Your task to perform on an android device: Add alienware aurora to the cart on bestbuy, then select checkout. Image 0: 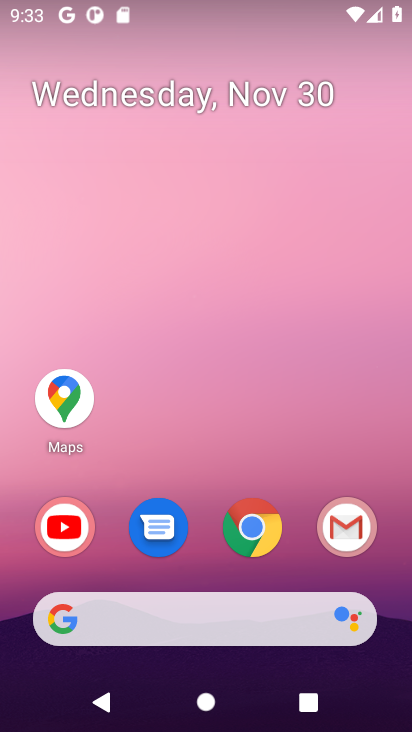
Step 0: click (258, 523)
Your task to perform on an android device: Add alienware aurora to the cart on bestbuy, then select checkout. Image 1: 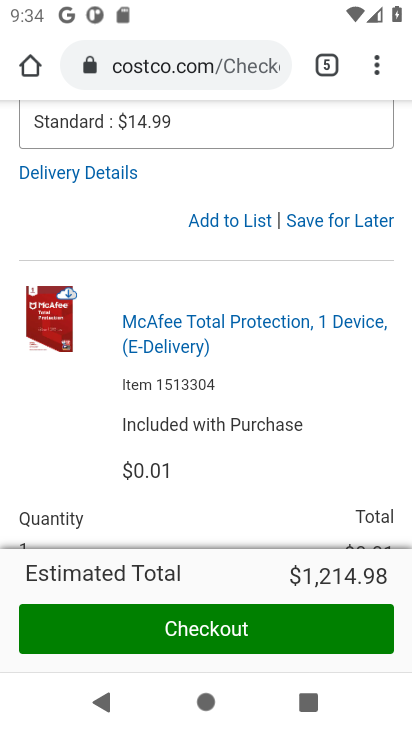
Step 1: click (231, 59)
Your task to perform on an android device: Add alienware aurora to the cart on bestbuy, then select checkout. Image 2: 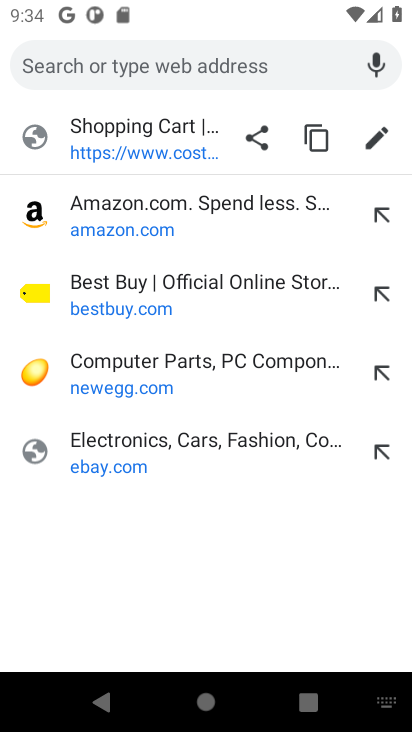
Step 2: click (134, 277)
Your task to perform on an android device: Add alienware aurora to the cart on bestbuy, then select checkout. Image 3: 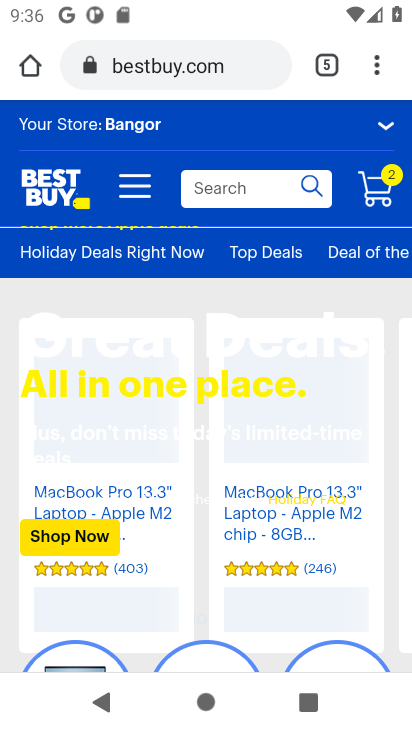
Step 3: click (285, 192)
Your task to perform on an android device: Add alienware aurora to the cart on bestbuy, then select checkout. Image 4: 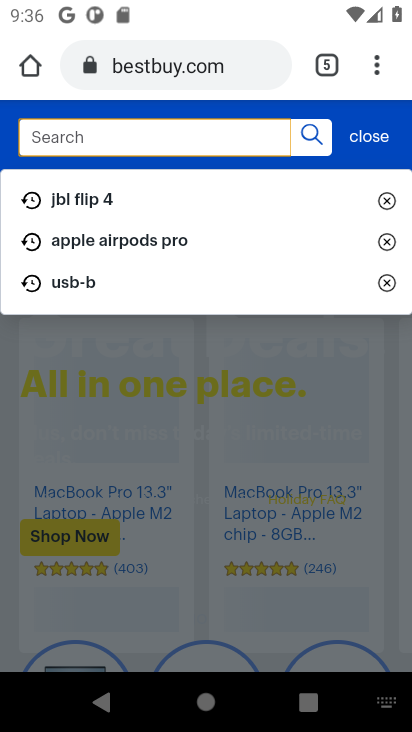
Step 4: type "alienware aurora"
Your task to perform on an android device: Add alienware aurora to the cart on bestbuy, then select checkout. Image 5: 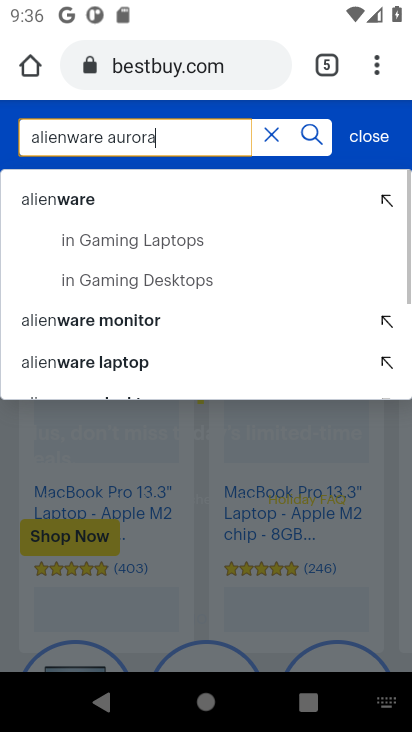
Step 5: press enter
Your task to perform on an android device: Add alienware aurora to the cart on bestbuy, then select checkout. Image 6: 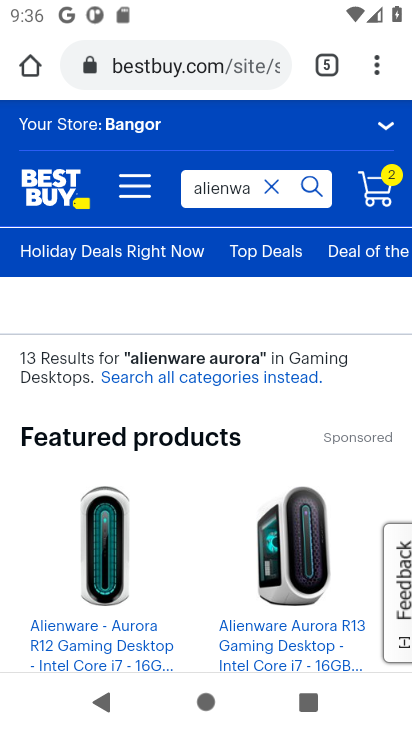
Step 6: click (87, 569)
Your task to perform on an android device: Add alienware aurora to the cart on bestbuy, then select checkout. Image 7: 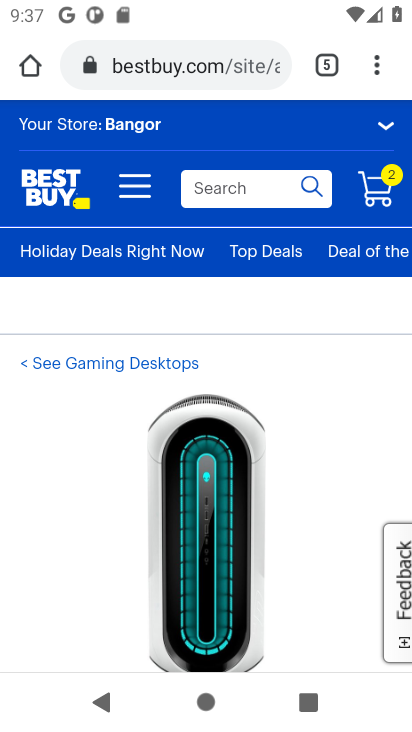
Step 7: drag from (302, 548) to (302, 79)
Your task to perform on an android device: Add alienware aurora to the cart on bestbuy, then select checkout. Image 8: 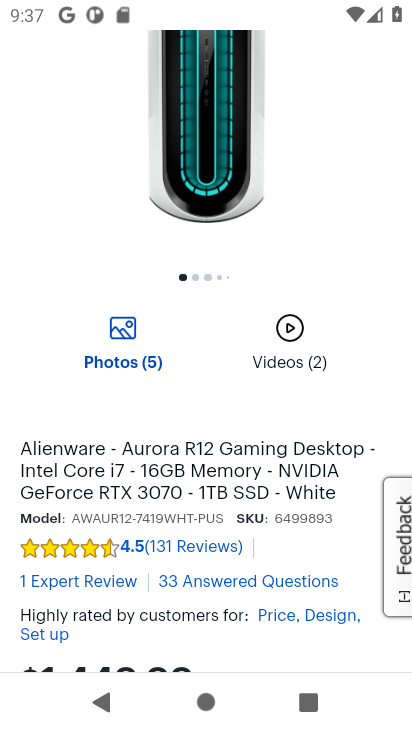
Step 8: drag from (326, 555) to (304, 69)
Your task to perform on an android device: Add alienware aurora to the cart on bestbuy, then select checkout. Image 9: 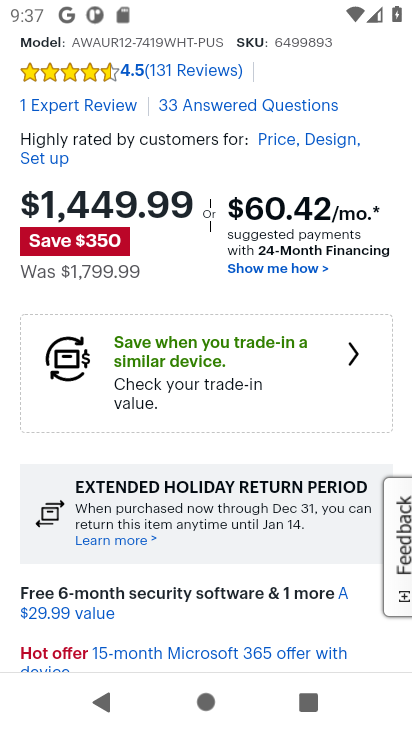
Step 9: drag from (316, 553) to (319, 155)
Your task to perform on an android device: Add alienware aurora to the cart on bestbuy, then select checkout. Image 10: 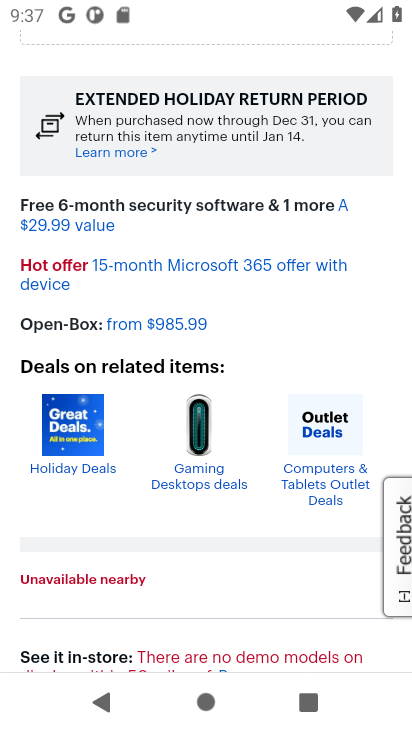
Step 10: drag from (282, 557) to (308, 118)
Your task to perform on an android device: Add alienware aurora to the cart on bestbuy, then select checkout. Image 11: 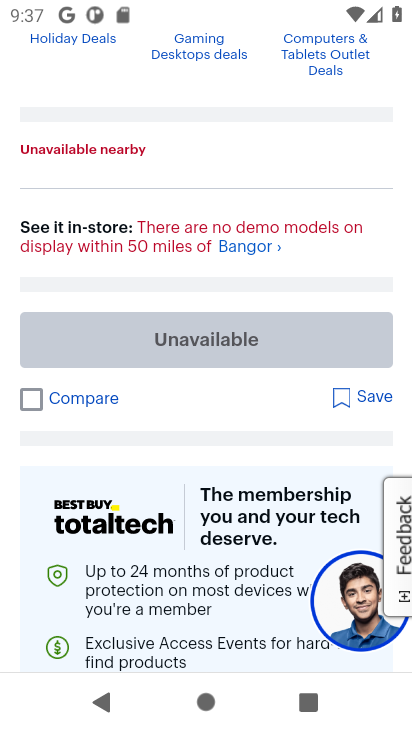
Step 11: press back button
Your task to perform on an android device: Add alienware aurora to the cart on bestbuy, then select checkout. Image 12: 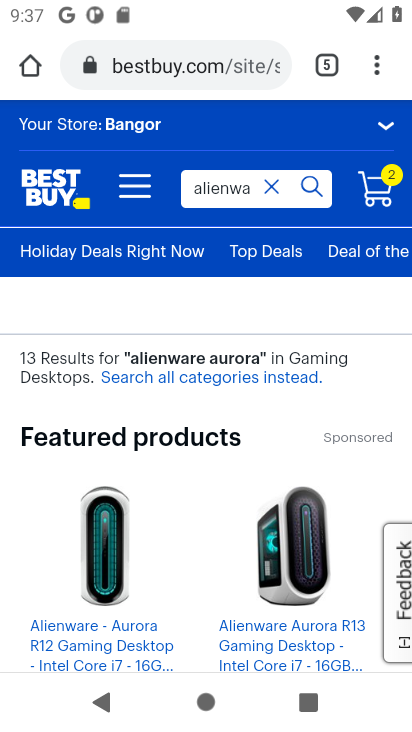
Step 12: drag from (354, 534) to (343, 164)
Your task to perform on an android device: Add alienware aurora to the cart on bestbuy, then select checkout. Image 13: 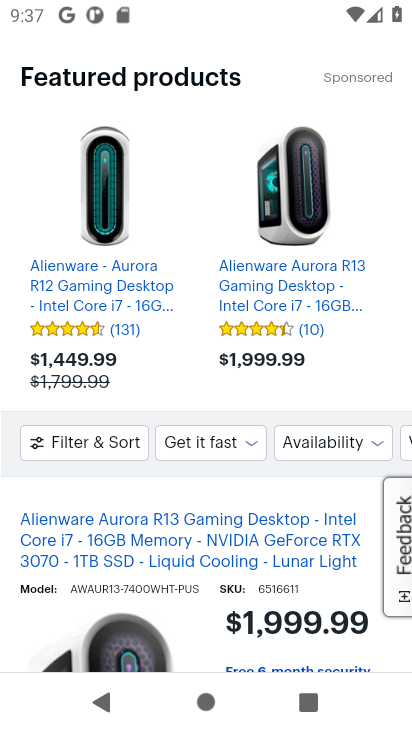
Step 13: click (295, 214)
Your task to perform on an android device: Add alienware aurora to the cart on bestbuy, then select checkout. Image 14: 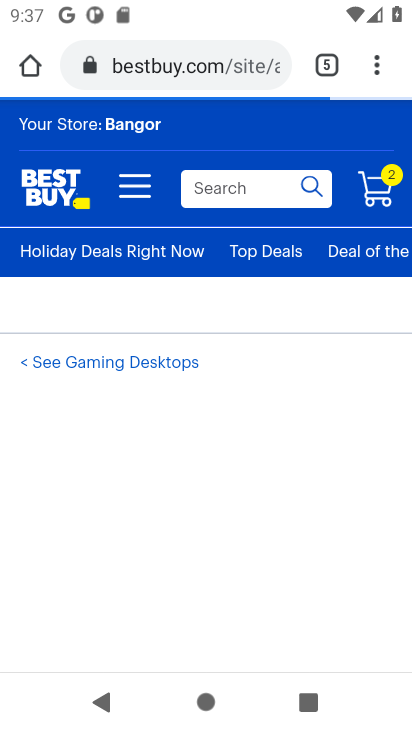
Step 14: press back button
Your task to perform on an android device: Add alienware aurora to the cart on bestbuy, then select checkout. Image 15: 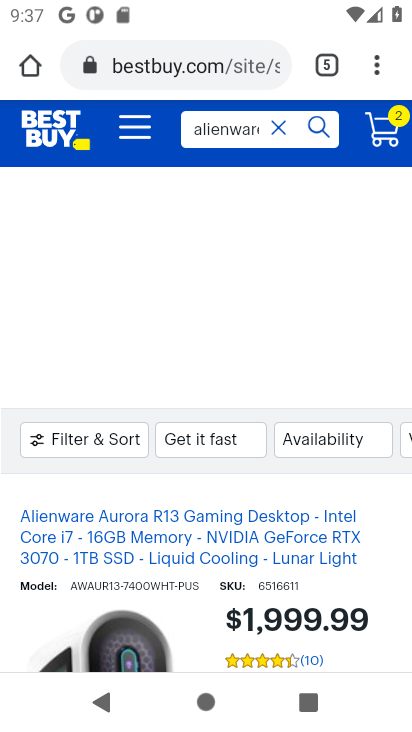
Step 15: drag from (308, 225) to (387, 716)
Your task to perform on an android device: Add alienware aurora to the cart on bestbuy, then select checkout. Image 16: 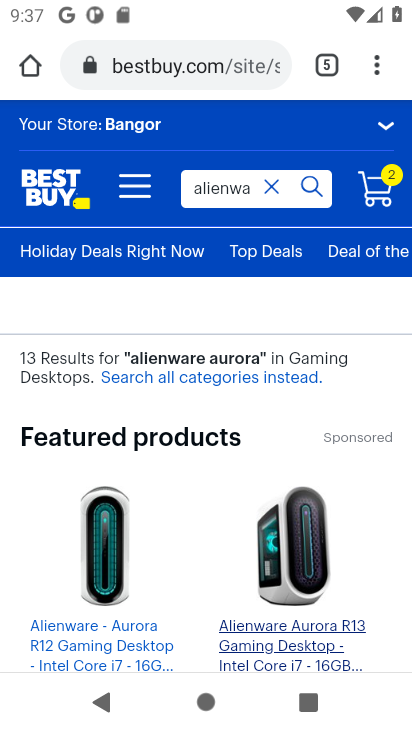
Step 16: drag from (303, 513) to (345, 135)
Your task to perform on an android device: Add alienware aurora to the cart on bestbuy, then select checkout. Image 17: 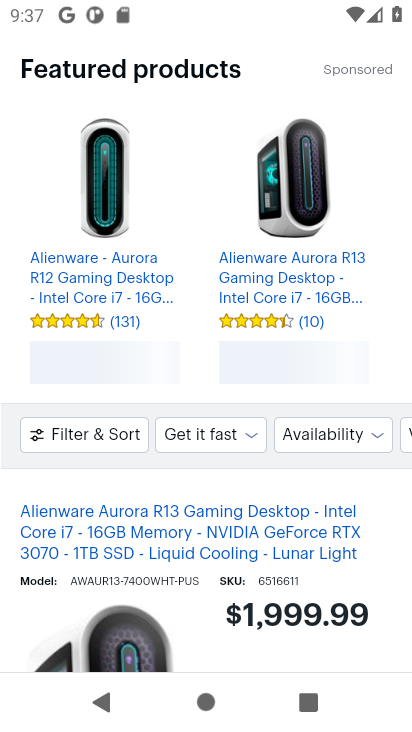
Step 17: drag from (193, 528) to (315, 86)
Your task to perform on an android device: Add alienware aurora to the cart on bestbuy, then select checkout. Image 18: 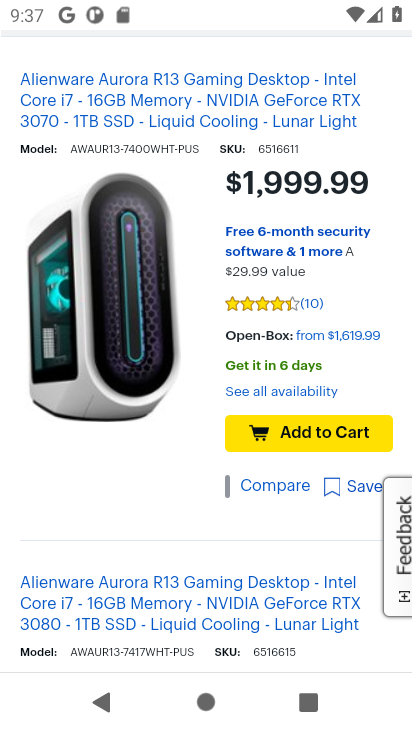
Step 18: click (333, 431)
Your task to perform on an android device: Add alienware aurora to the cart on bestbuy, then select checkout. Image 19: 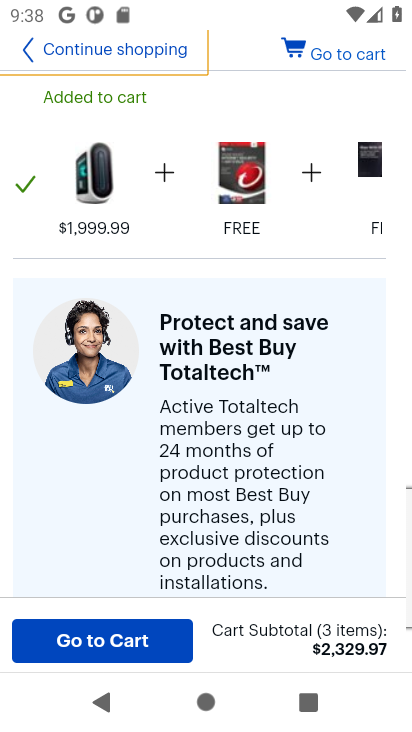
Step 19: click (107, 646)
Your task to perform on an android device: Add alienware aurora to the cart on bestbuy, then select checkout. Image 20: 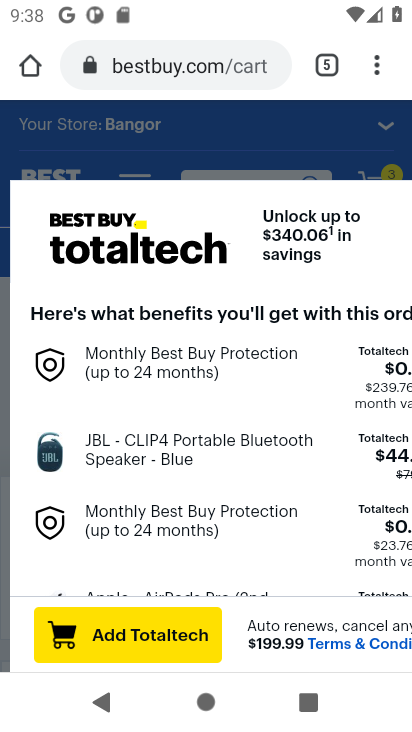
Step 20: click (253, 129)
Your task to perform on an android device: Add alienware aurora to the cart on bestbuy, then select checkout. Image 21: 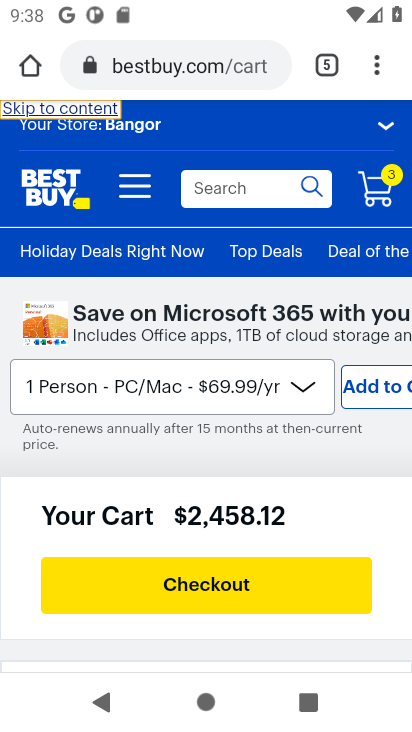
Step 21: click (222, 582)
Your task to perform on an android device: Add alienware aurora to the cart on bestbuy, then select checkout. Image 22: 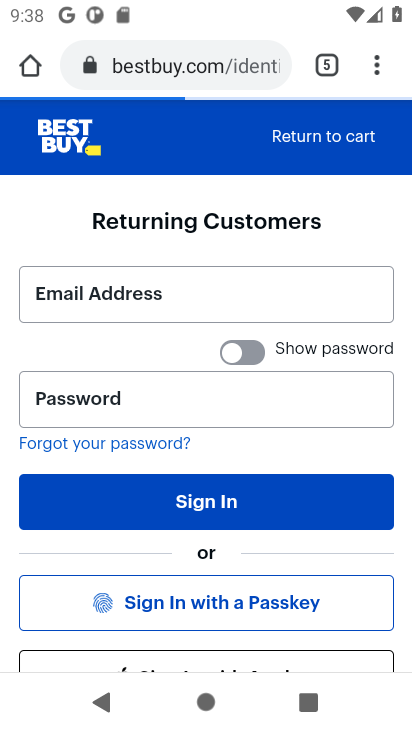
Step 22: task complete